Your task to perform on an android device: turn off smart reply in the gmail app Image 0: 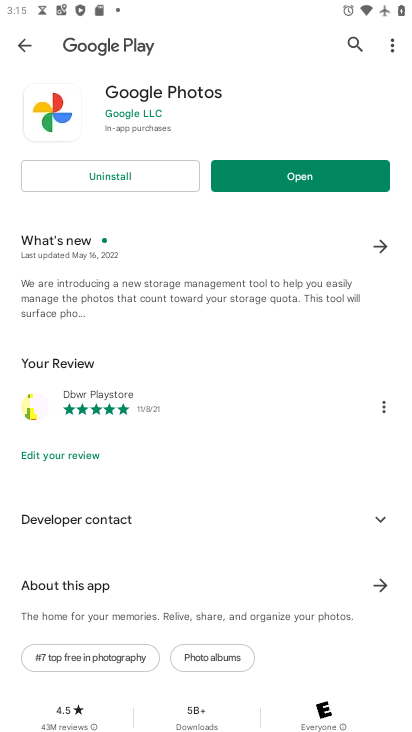
Step 0: press home button
Your task to perform on an android device: turn off smart reply in the gmail app Image 1: 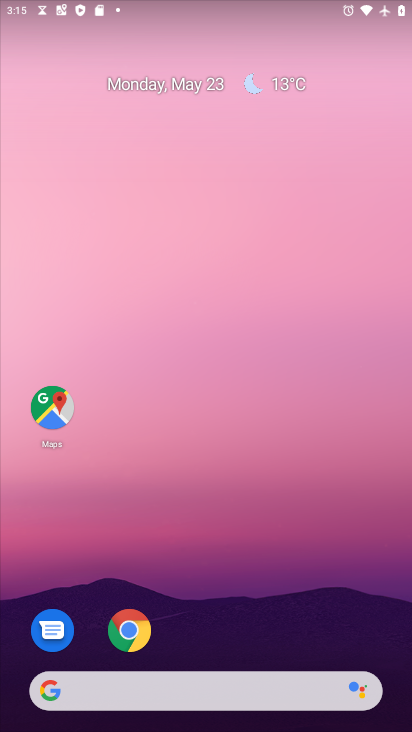
Step 1: drag from (247, 615) to (205, 9)
Your task to perform on an android device: turn off smart reply in the gmail app Image 2: 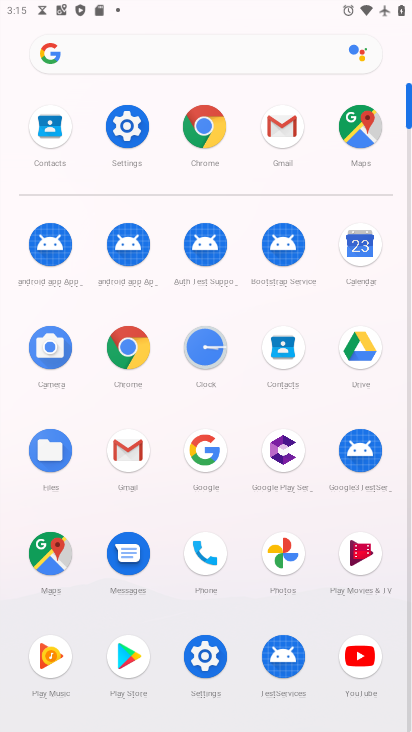
Step 2: click (291, 139)
Your task to perform on an android device: turn off smart reply in the gmail app Image 3: 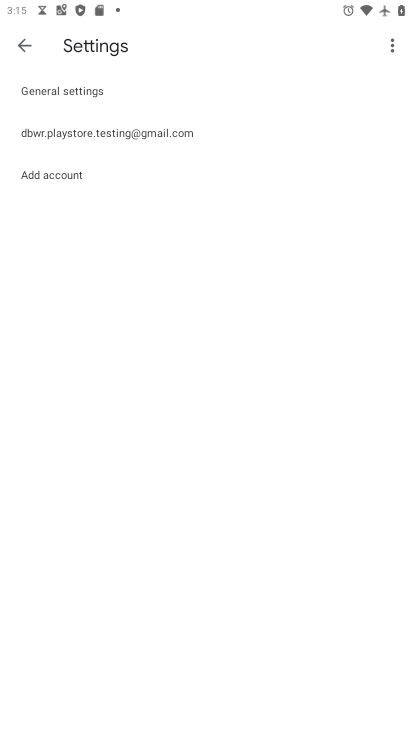
Step 3: click (116, 146)
Your task to perform on an android device: turn off smart reply in the gmail app Image 4: 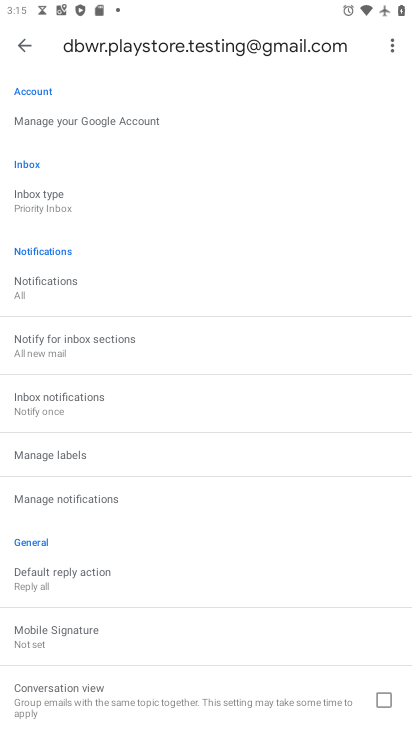
Step 4: task complete